Your task to perform on an android device: Open my contact list Image 0: 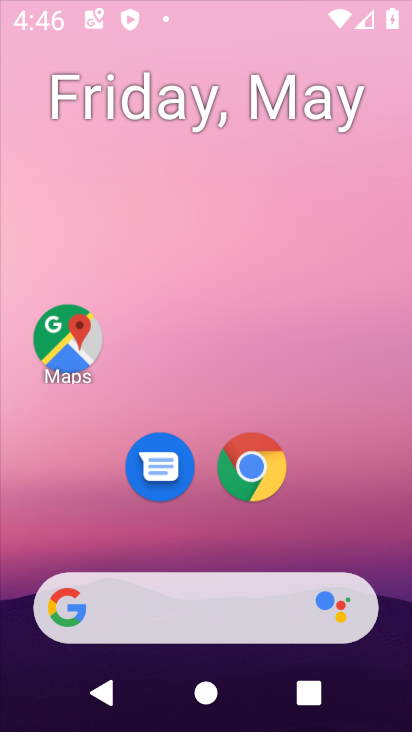
Step 0: click (338, 0)
Your task to perform on an android device: Open my contact list Image 1: 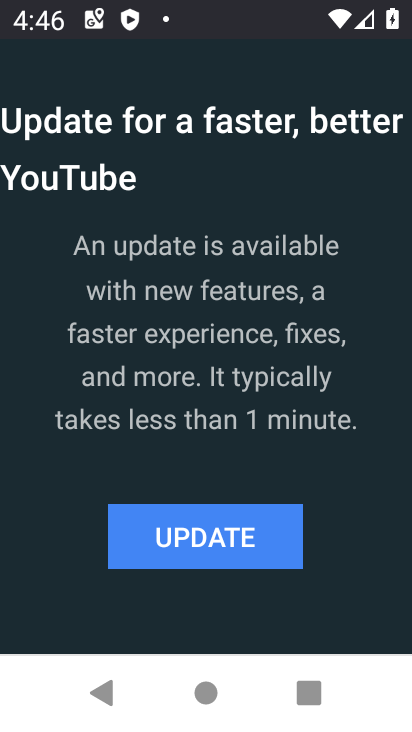
Step 1: press home button
Your task to perform on an android device: Open my contact list Image 2: 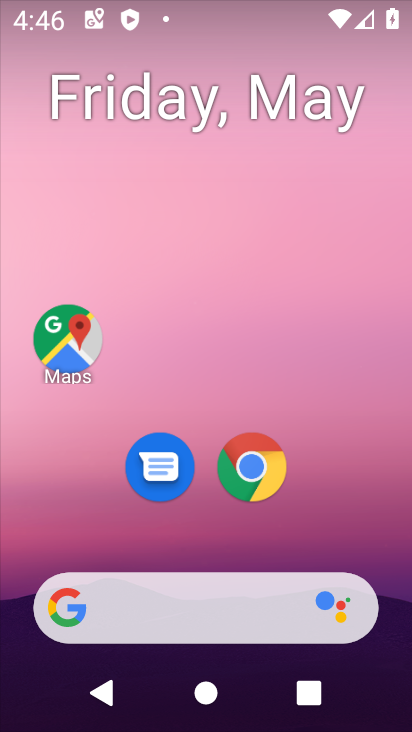
Step 2: drag from (204, 533) to (213, 143)
Your task to perform on an android device: Open my contact list Image 3: 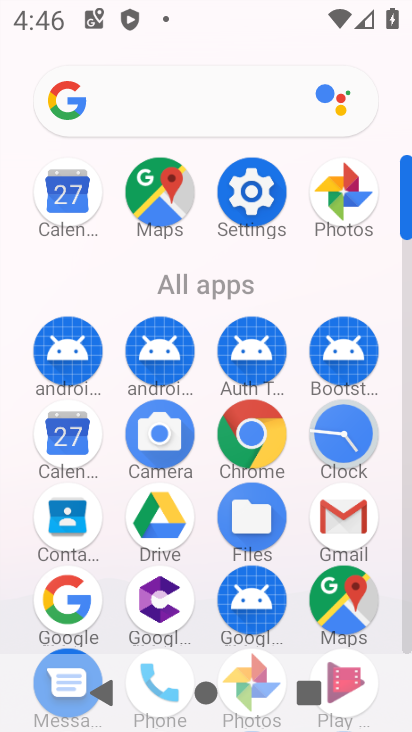
Step 3: click (80, 521)
Your task to perform on an android device: Open my contact list Image 4: 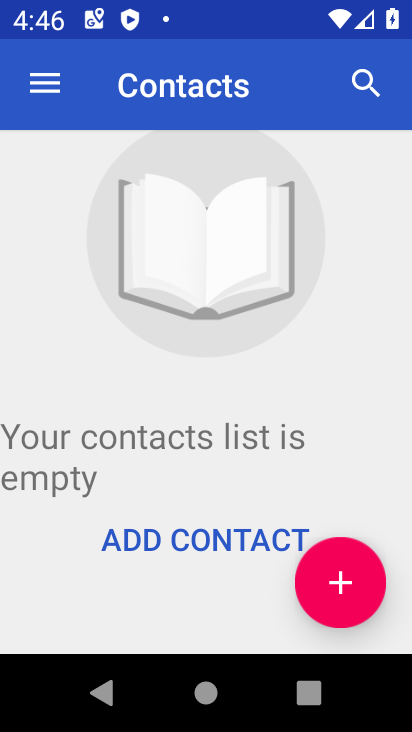
Step 4: task complete